Your task to perform on an android device: see creations saved in the google photos Image 0: 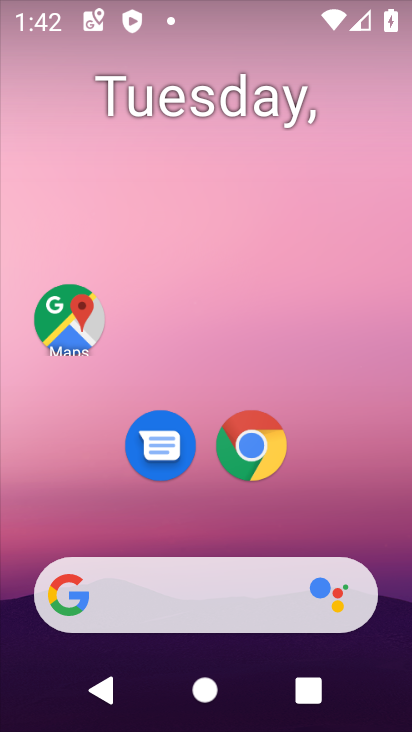
Step 0: drag from (382, 475) to (297, 57)
Your task to perform on an android device: see creations saved in the google photos Image 1: 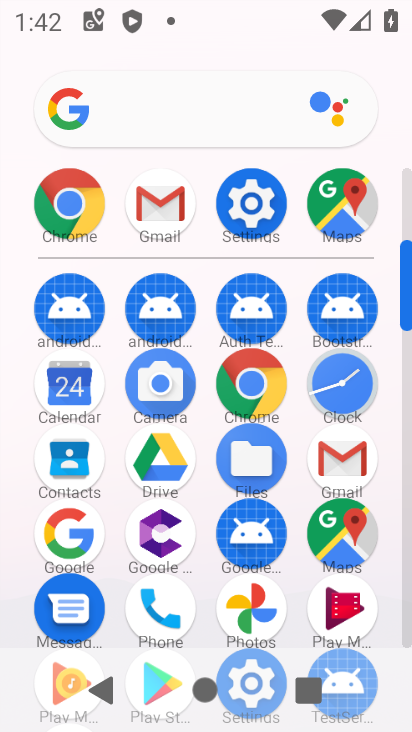
Step 1: click (259, 595)
Your task to perform on an android device: see creations saved in the google photos Image 2: 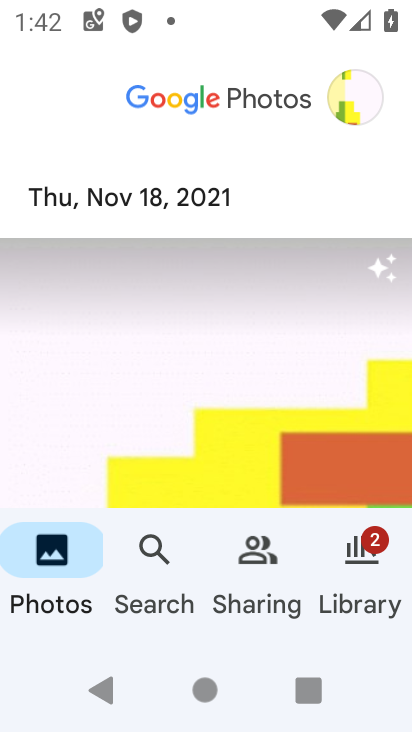
Step 2: task complete